Your task to perform on an android device: show emergency info Image 0: 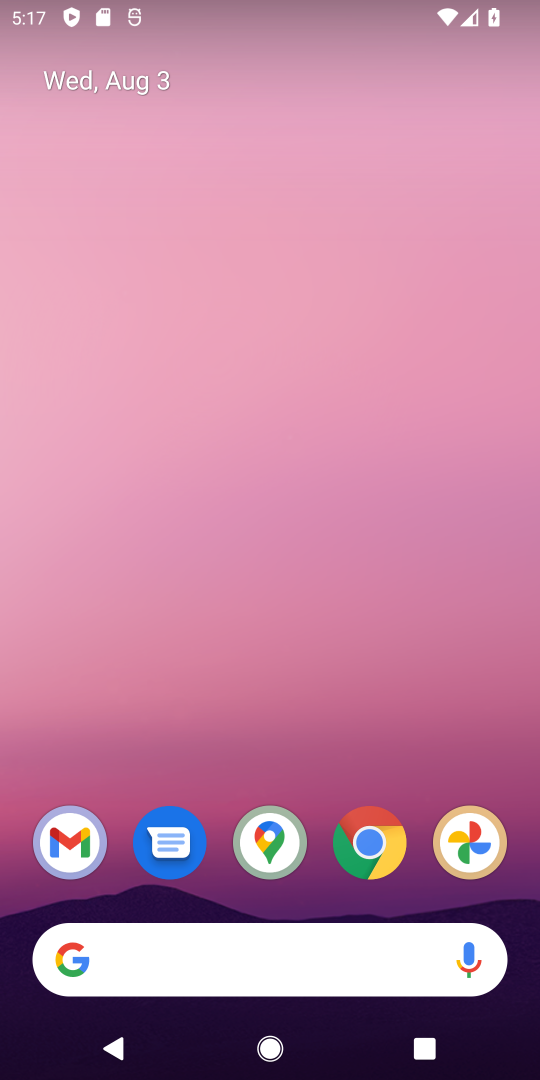
Step 0: drag from (264, 262) to (303, 3)
Your task to perform on an android device: show emergency info Image 1: 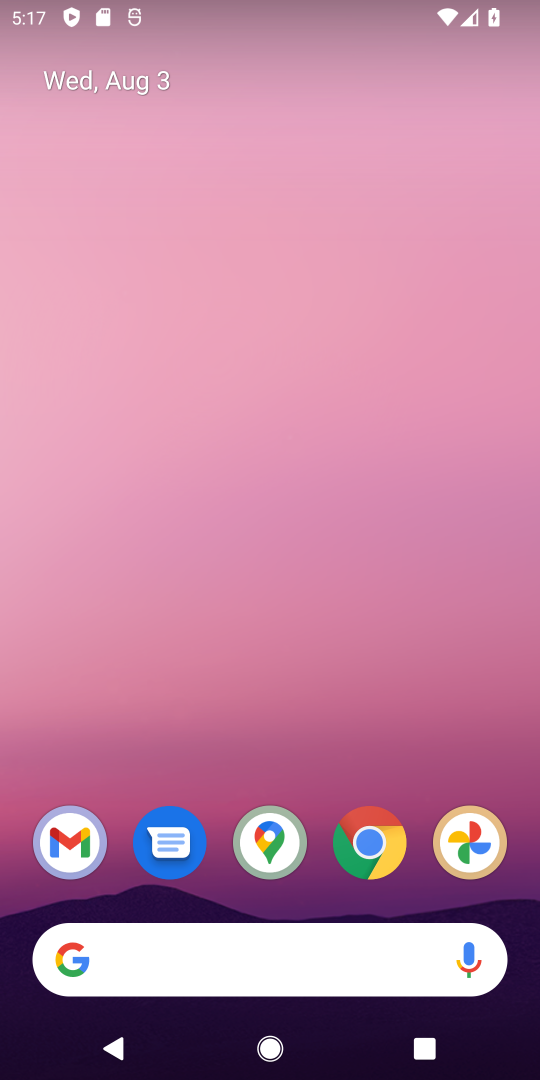
Step 1: drag from (331, 537) to (388, 51)
Your task to perform on an android device: show emergency info Image 2: 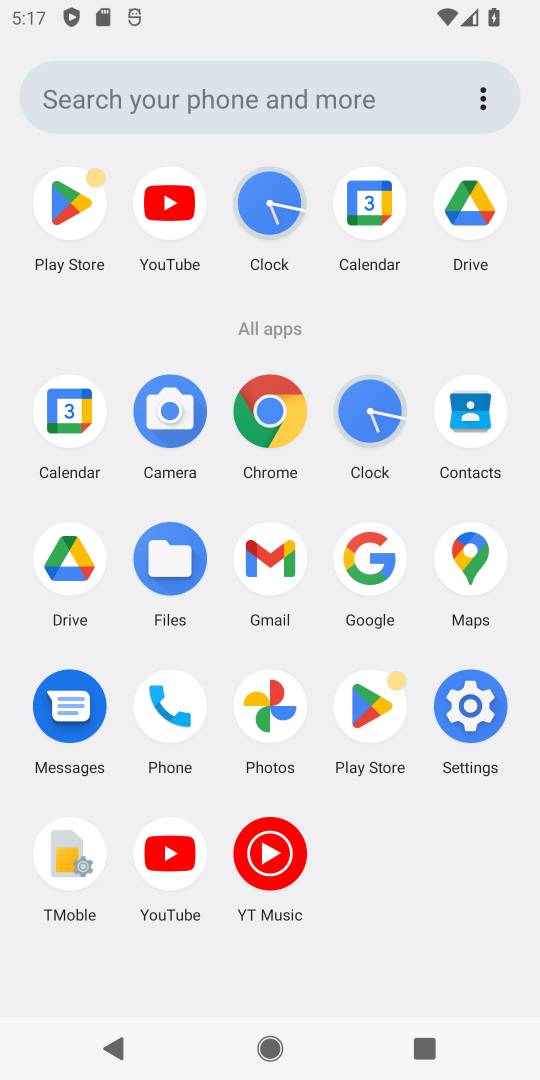
Step 2: click (469, 692)
Your task to perform on an android device: show emergency info Image 3: 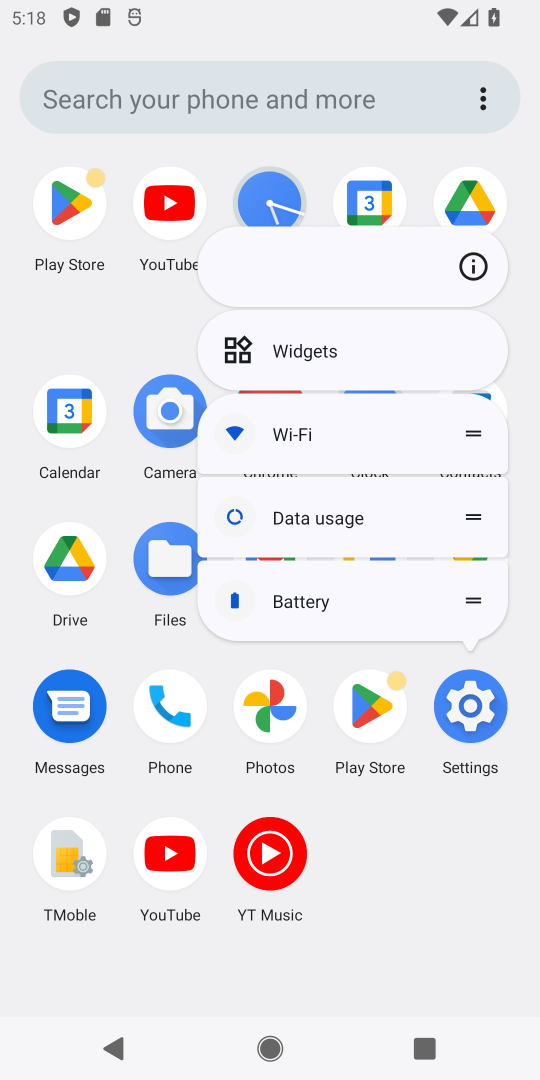
Step 3: click (469, 692)
Your task to perform on an android device: show emergency info Image 4: 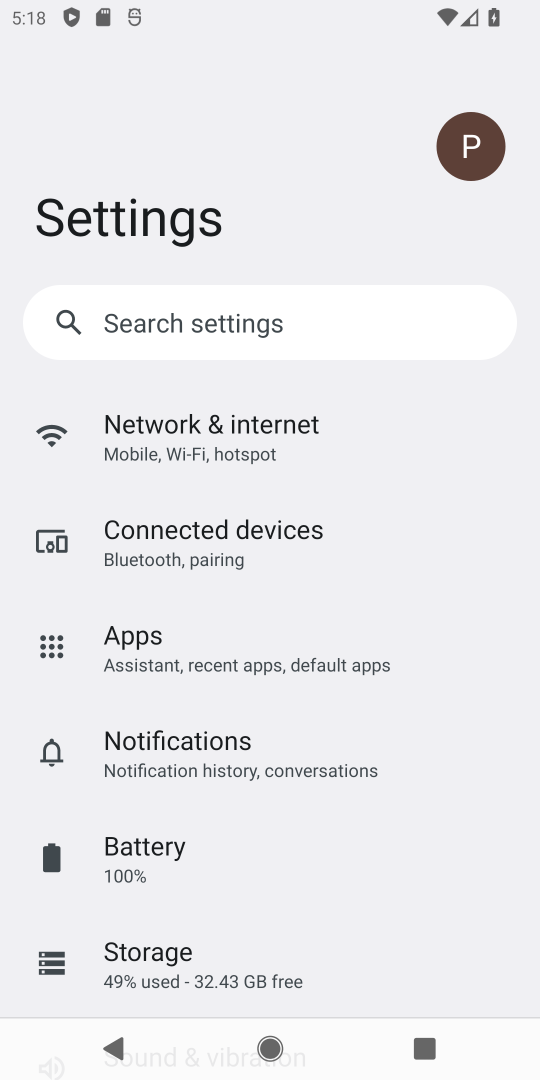
Step 4: drag from (348, 877) to (353, 78)
Your task to perform on an android device: show emergency info Image 5: 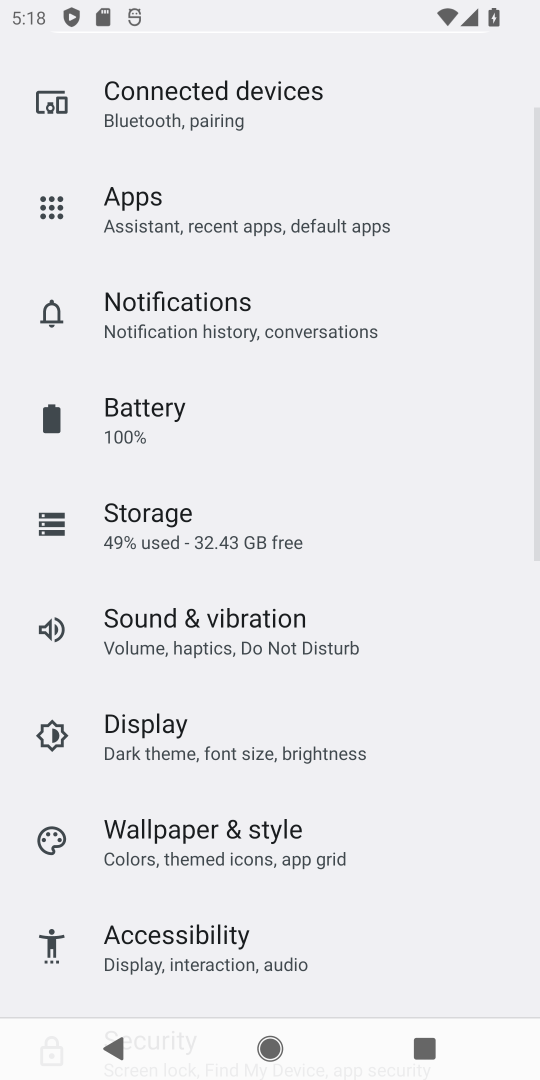
Step 5: drag from (253, 632) to (302, 165)
Your task to perform on an android device: show emergency info Image 6: 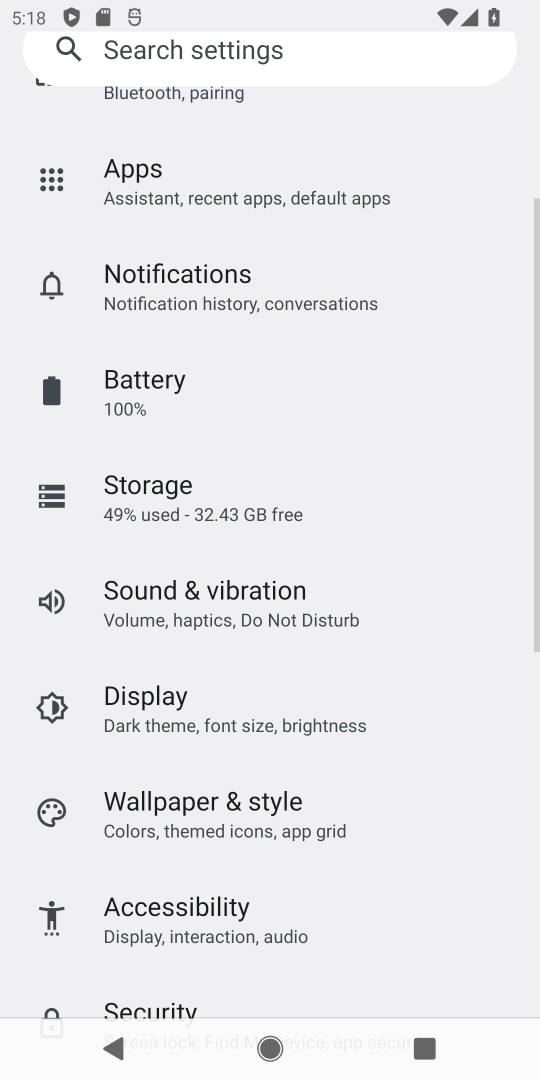
Step 6: drag from (218, 933) to (307, 76)
Your task to perform on an android device: show emergency info Image 7: 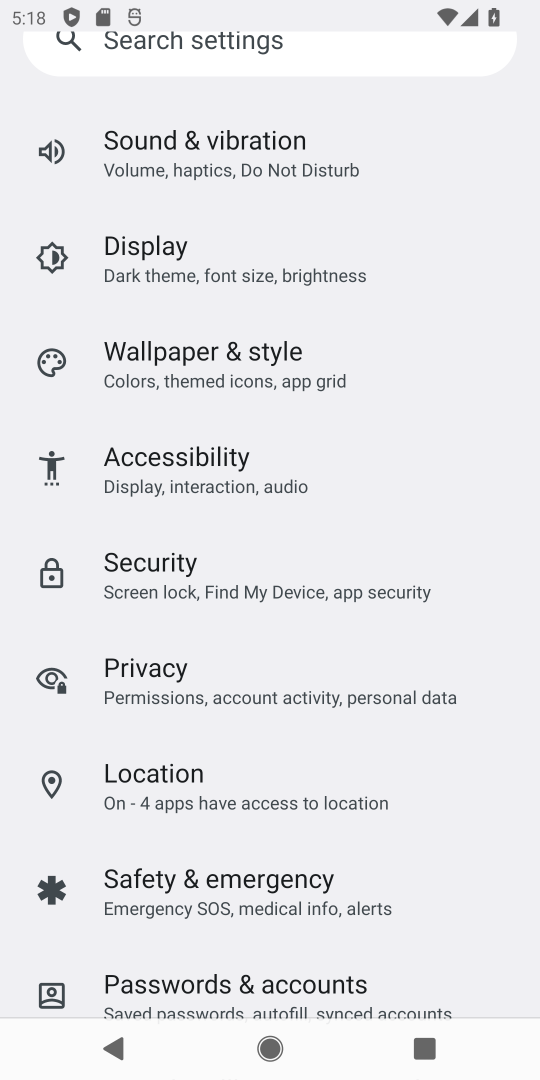
Step 7: drag from (277, 778) to (273, 55)
Your task to perform on an android device: show emergency info Image 8: 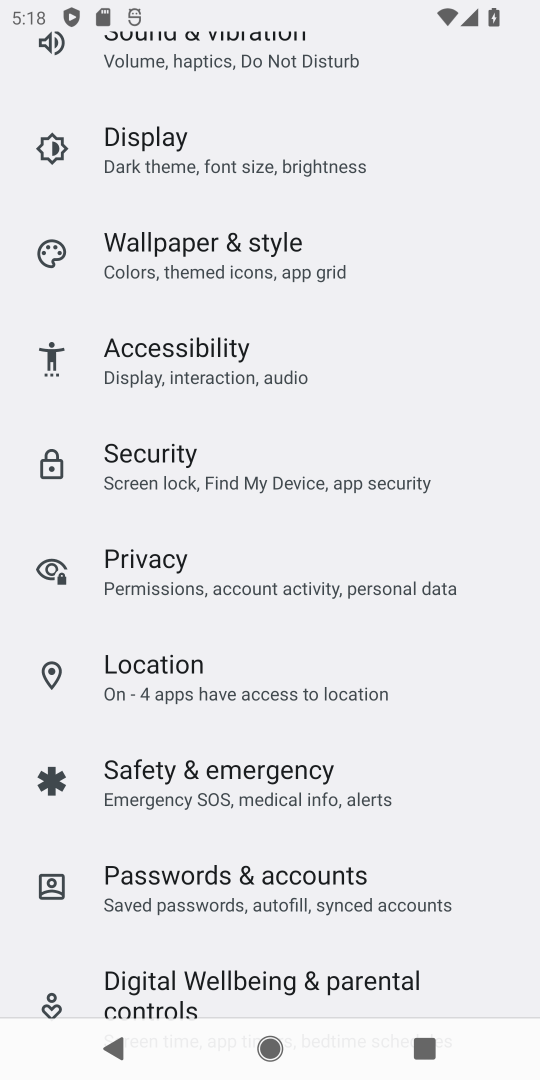
Step 8: drag from (340, 816) to (342, 284)
Your task to perform on an android device: show emergency info Image 9: 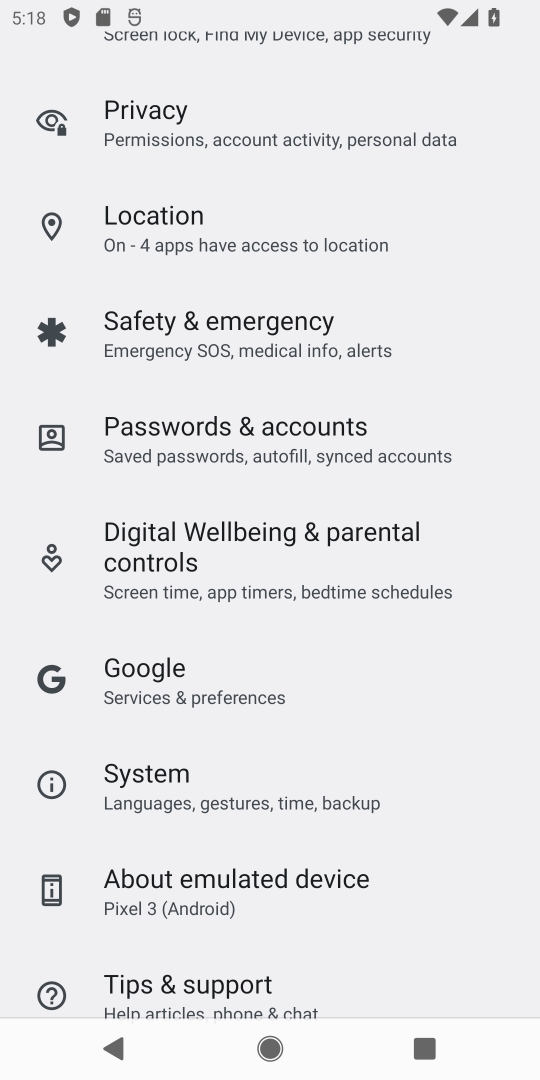
Step 9: click (255, 343)
Your task to perform on an android device: show emergency info Image 10: 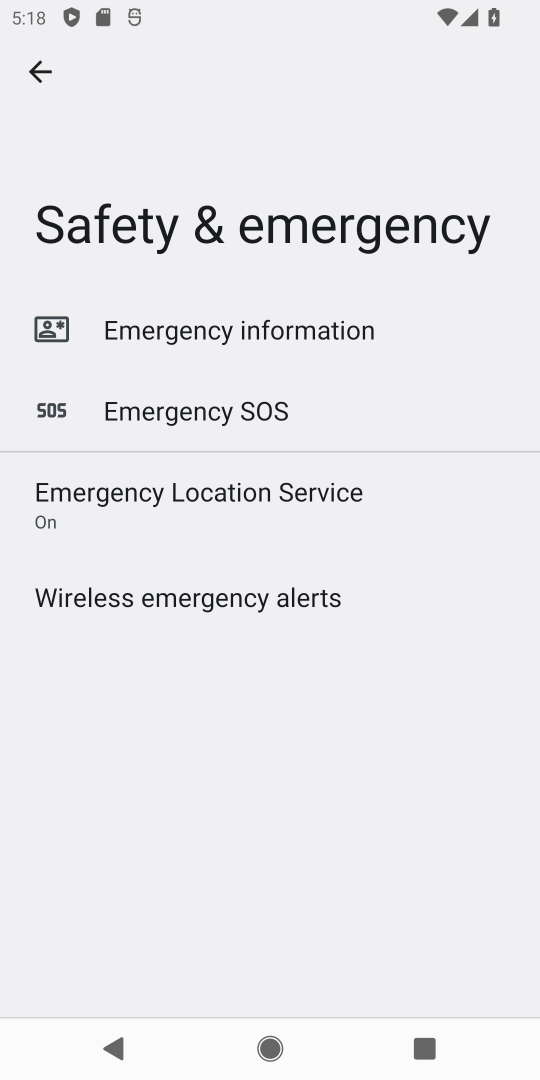
Step 10: click (294, 333)
Your task to perform on an android device: show emergency info Image 11: 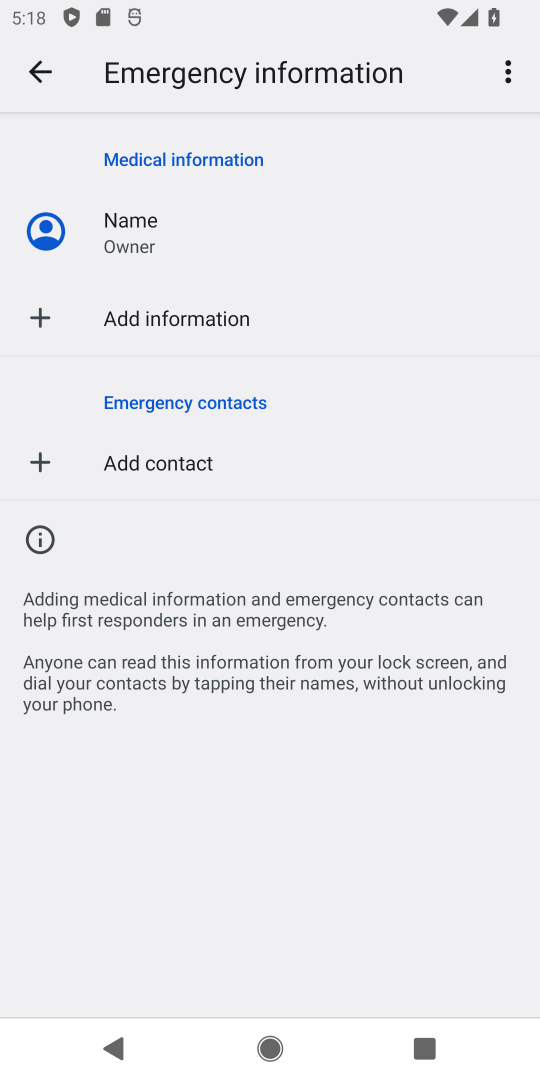
Step 11: task complete